Your task to perform on an android device: Go to Wikipedia Image 0: 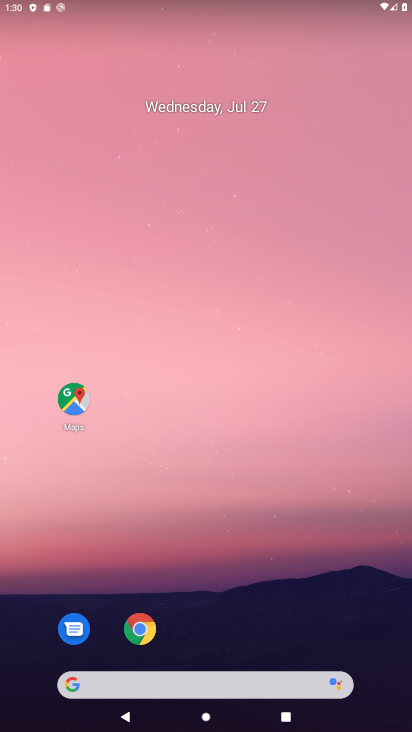
Step 0: press home button
Your task to perform on an android device: Go to Wikipedia Image 1: 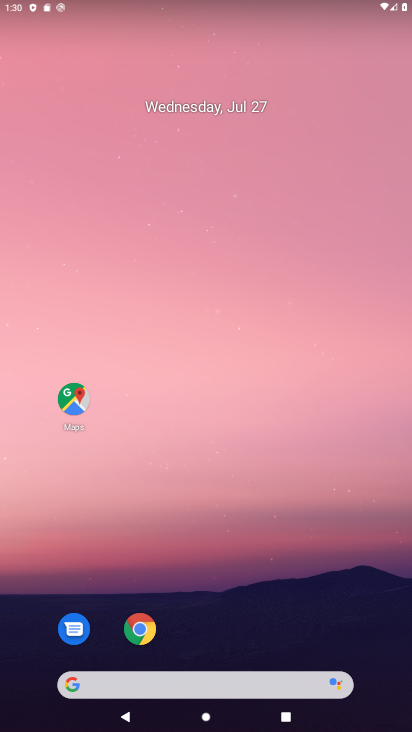
Step 1: click (73, 687)
Your task to perform on an android device: Go to Wikipedia Image 2: 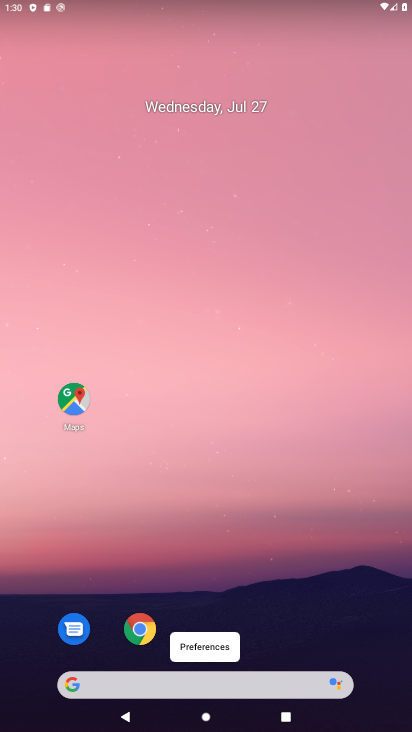
Step 2: click (73, 687)
Your task to perform on an android device: Go to Wikipedia Image 3: 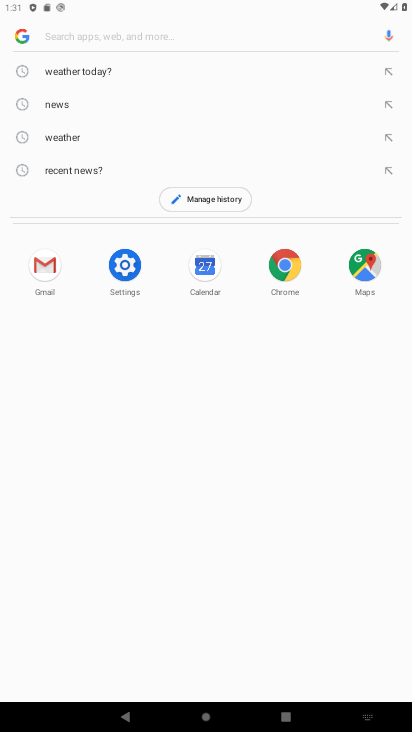
Step 3: type "Wikipedia"
Your task to perform on an android device: Go to Wikipedia Image 4: 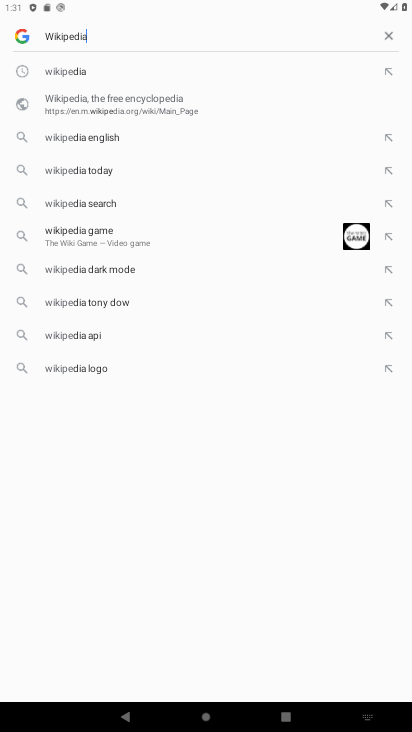
Step 4: press enter
Your task to perform on an android device: Go to Wikipedia Image 5: 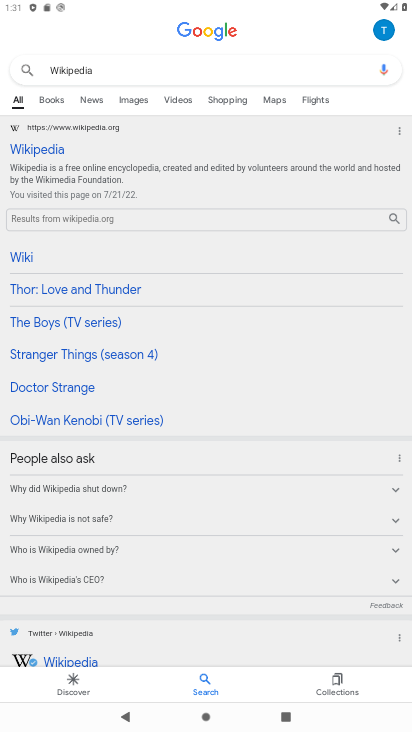
Step 5: click (34, 151)
Your task to perform on an android device: Go to Wikipedia Image 6: 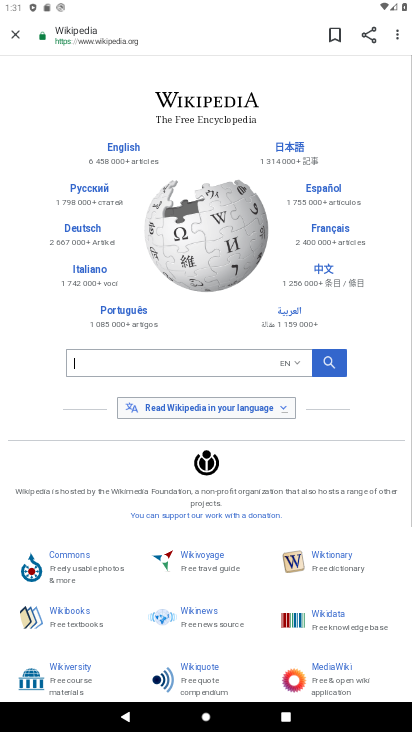
Step 6: task complete